Your task to perform on an android device: uninstall "Google Chat" Image 0: 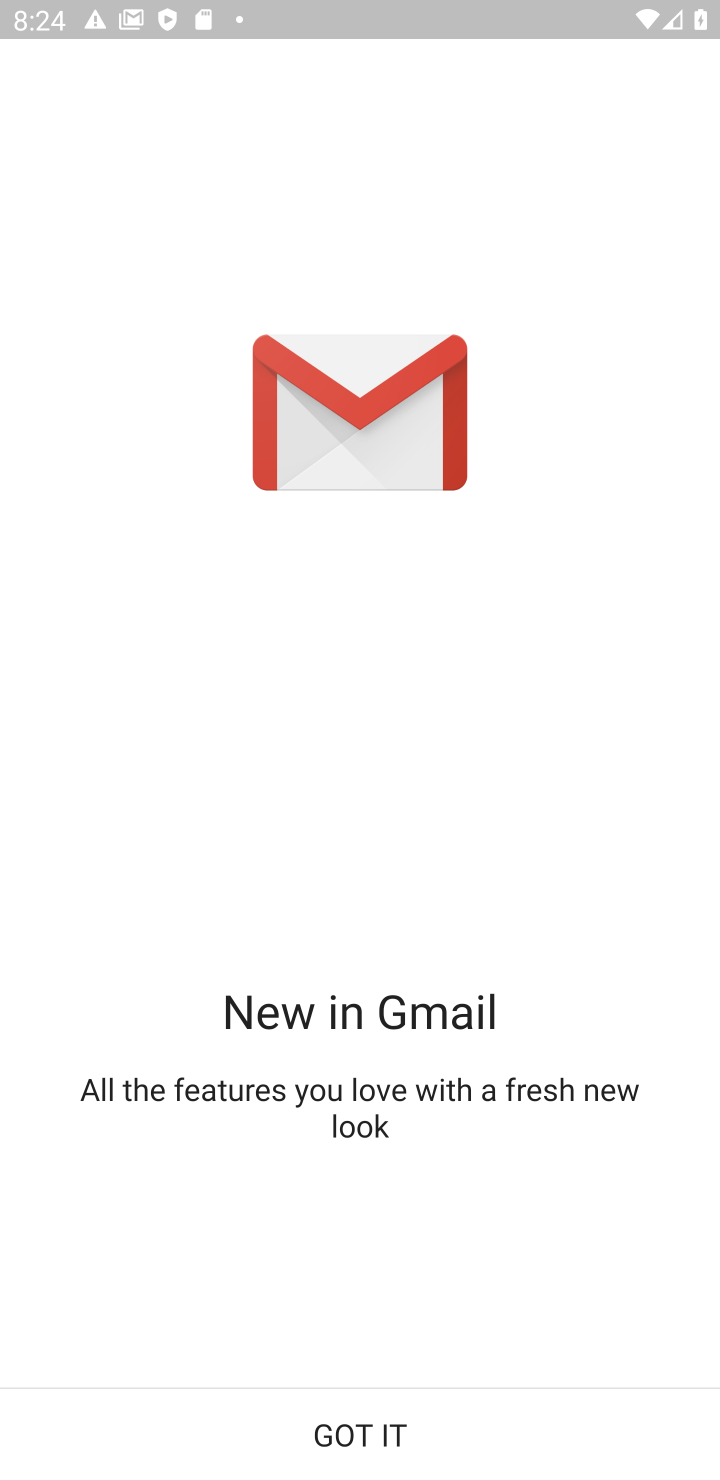
Step 0: press home button
Your task to perform on an android device: uninstall "Google Chat" Image 1: 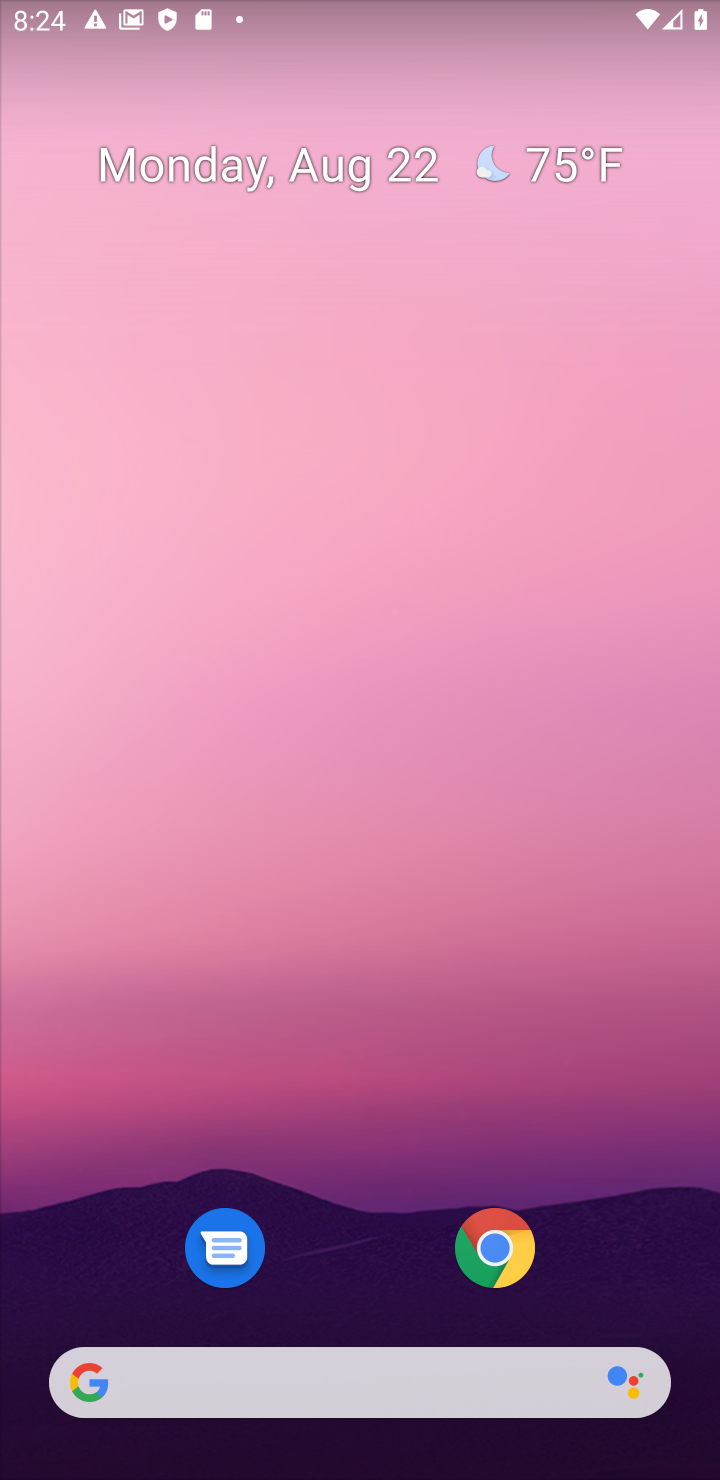
Step 1: drag from (384, 864) to (388, 196)
Your task to perform on an android device: uninstall "Google Chat" Image 2: 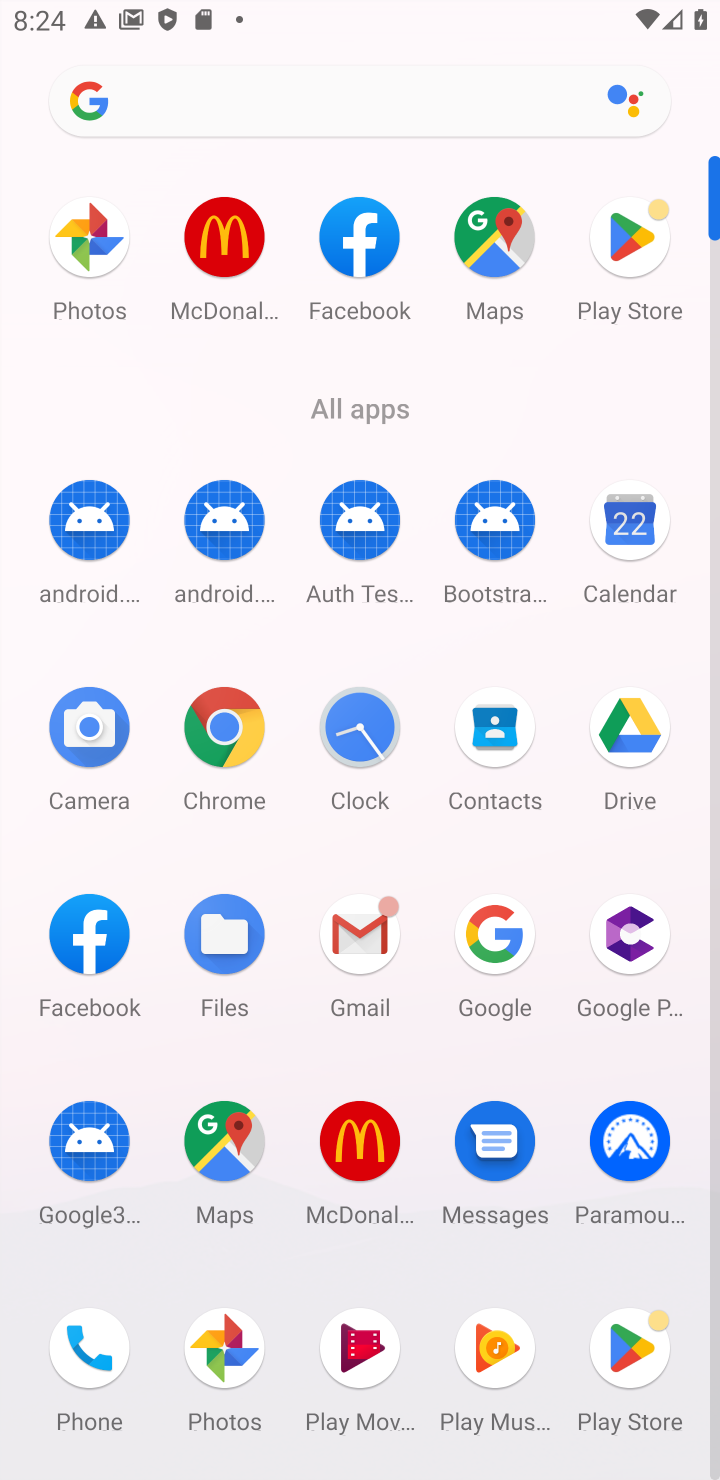
Step 2: click (625, 1349)
Your task to perform on an android device: uninstall "Google Chat" Image 3: 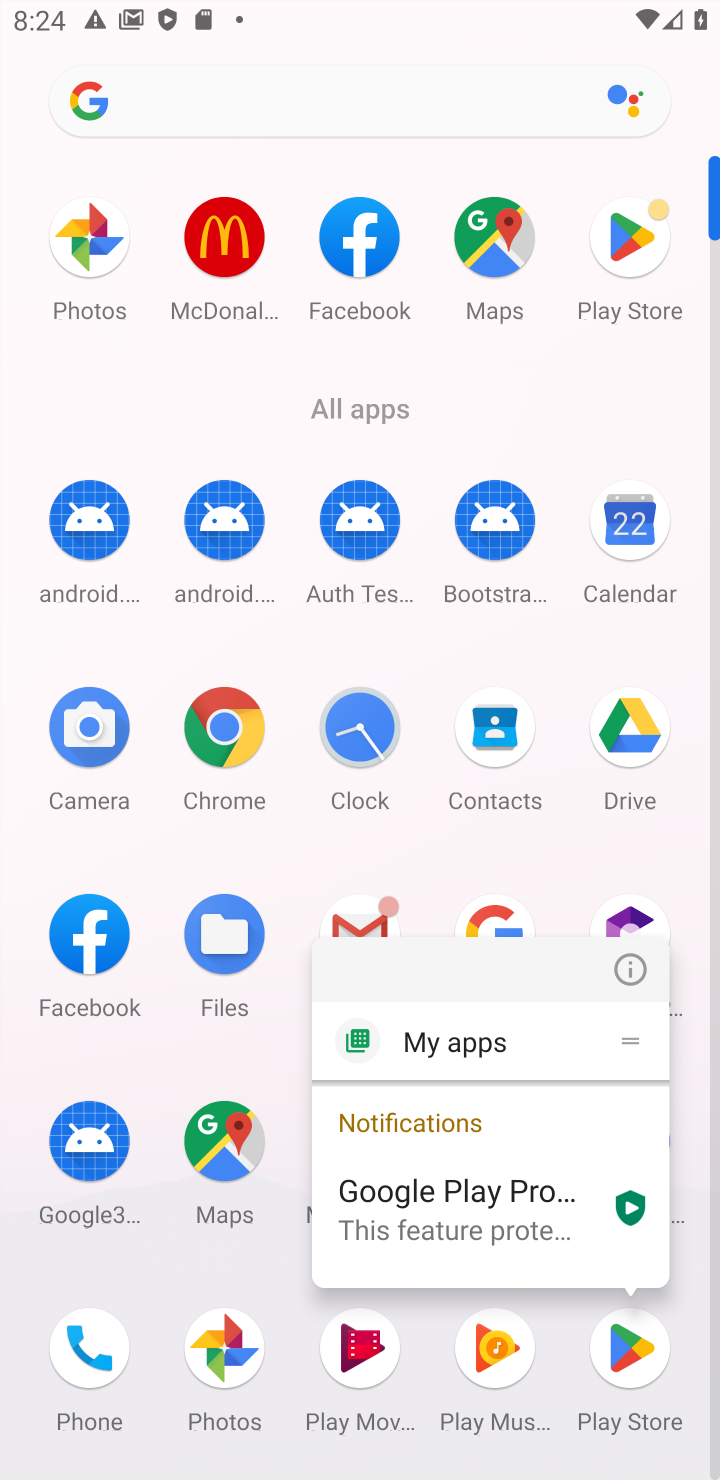
Step 3: click (605, 1348)
Your task to perform on an android device: uninstall "Google Chat" Image 4: 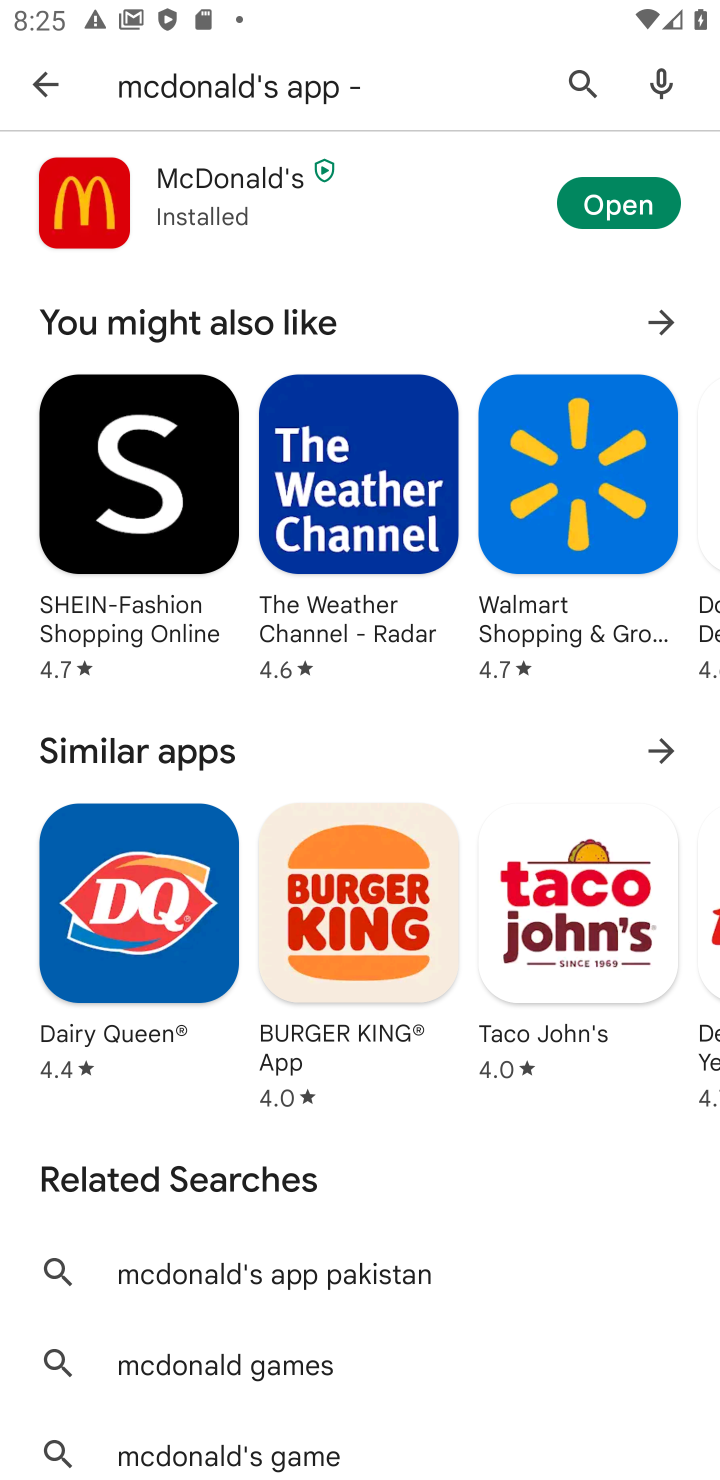
Step 4: click (586, 79)
Your task to perform on an android device: uninstall "Google Chat" Image 5: 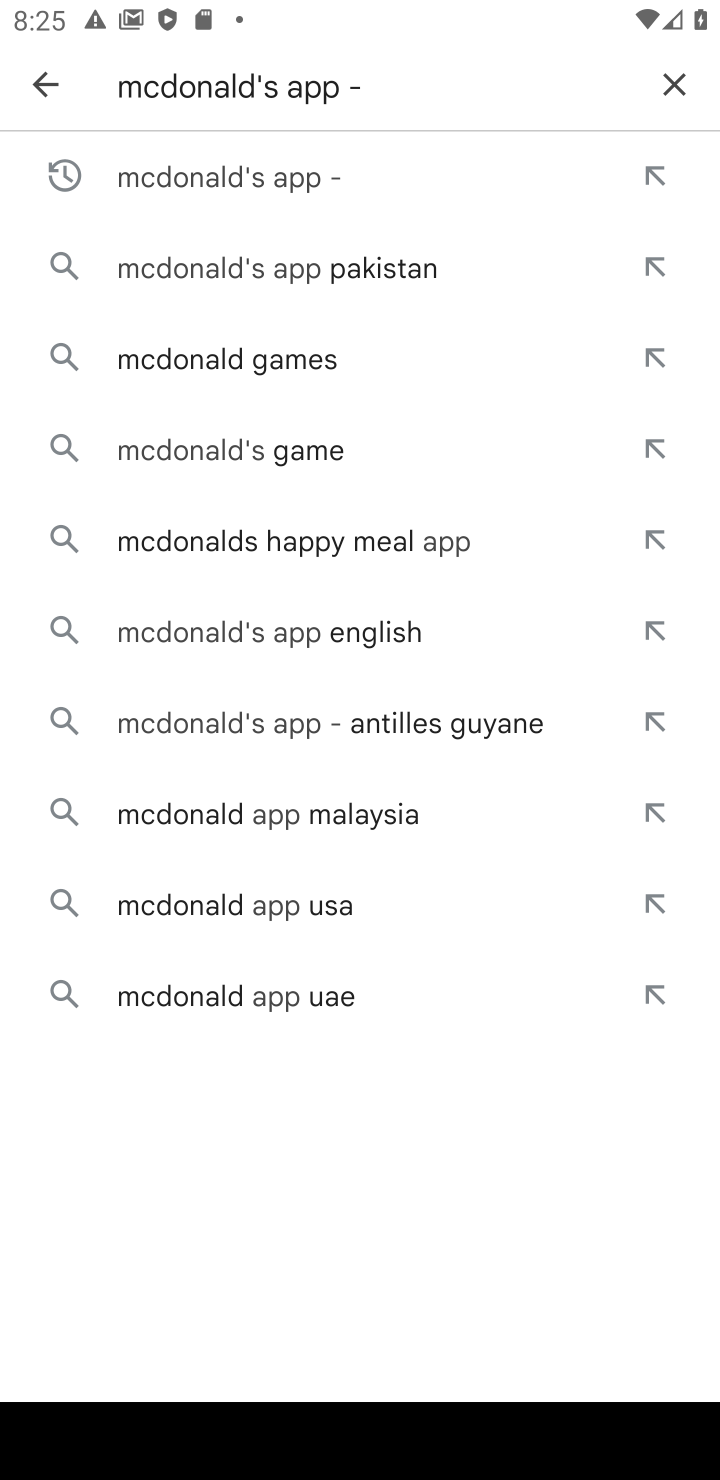
Step 5: click (676, 78)
Your task to perform on an android device: uninstall "Google Chat" Image 6: 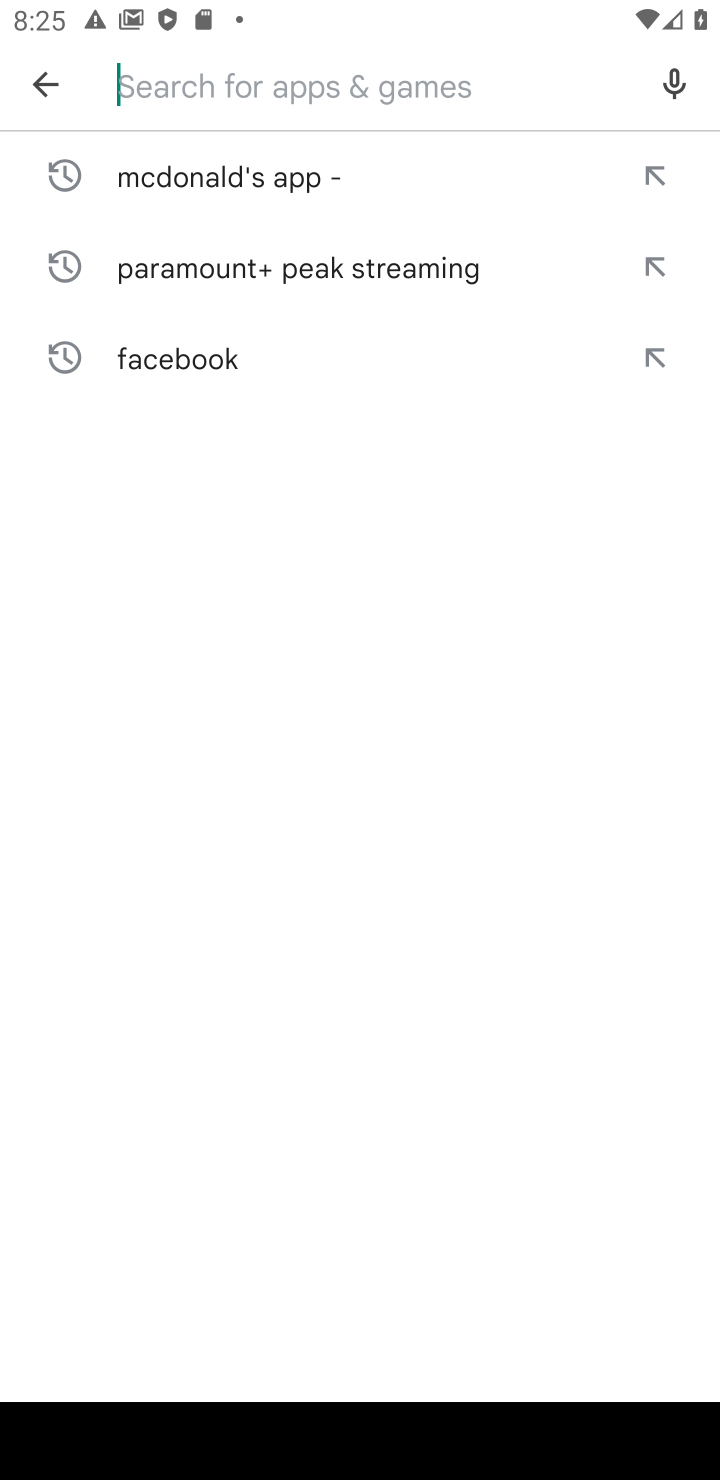
Step 6: type "Google Chat"
Your task to perform on an android device: uninstall "Google Chat" Image 7: 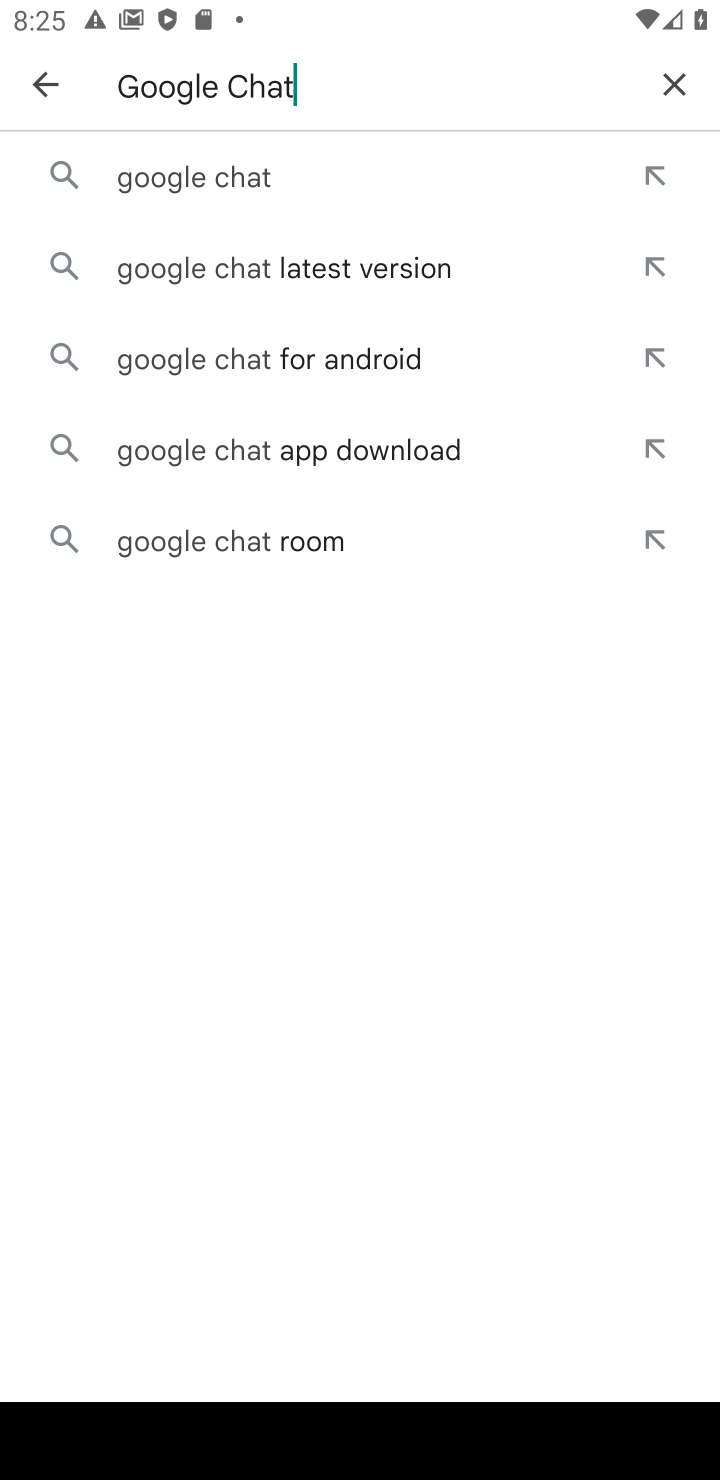
Step 7: click (202, 172)
Your task to perform on an android device: uninstall "Google Chat" Image 8: 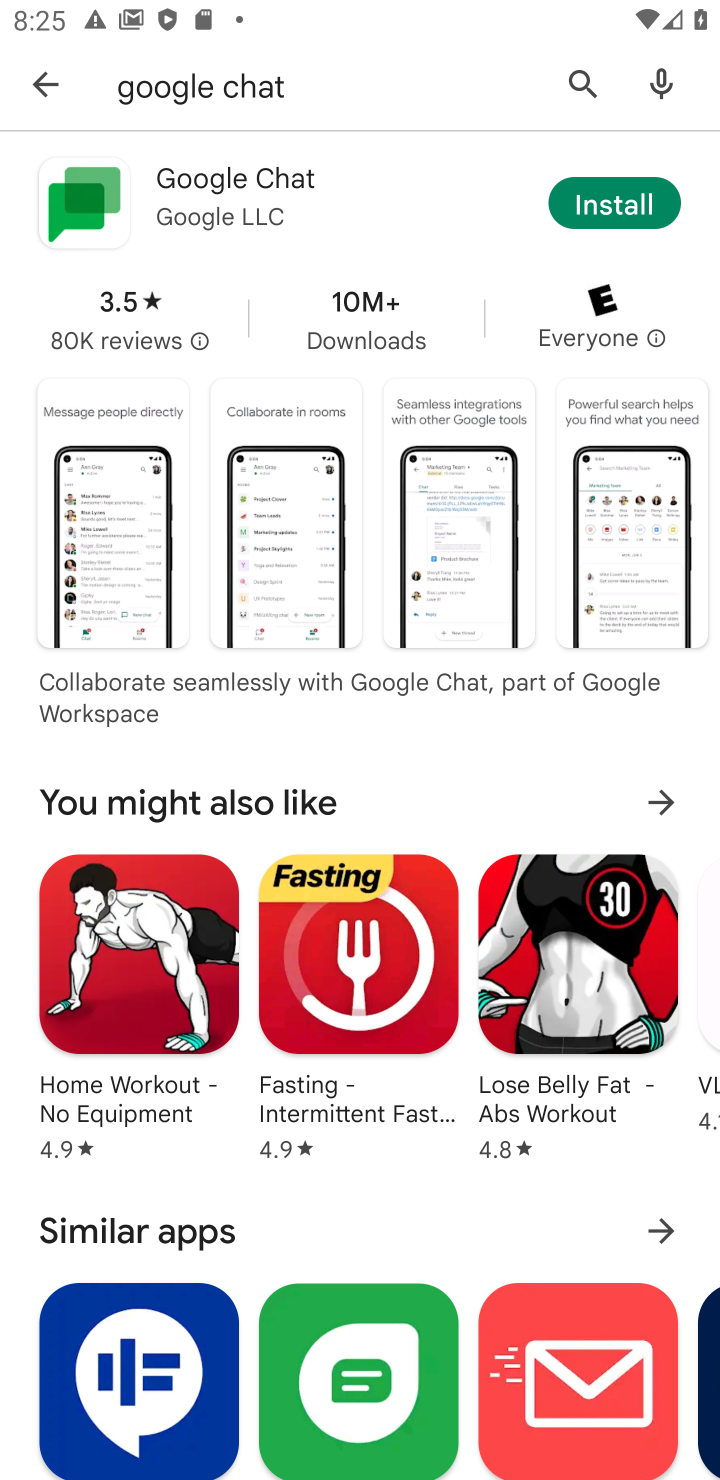
Step 8: task complete